Your task to perform on an android device: Go to Wikipedia Image 0: 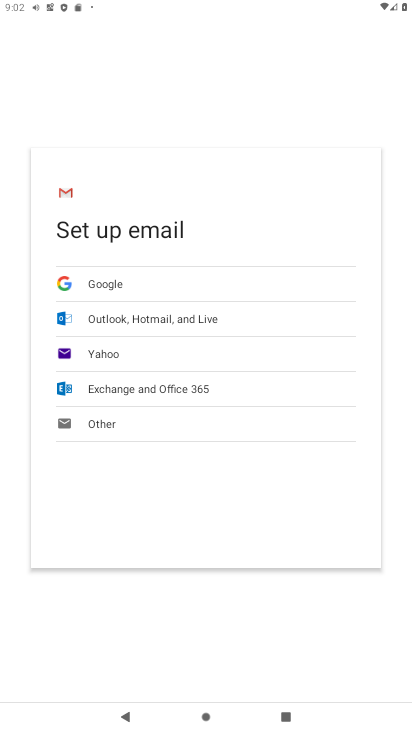
Step 0: press home button
Your task to perform on an android device: Go to Wikipedia Image 1: 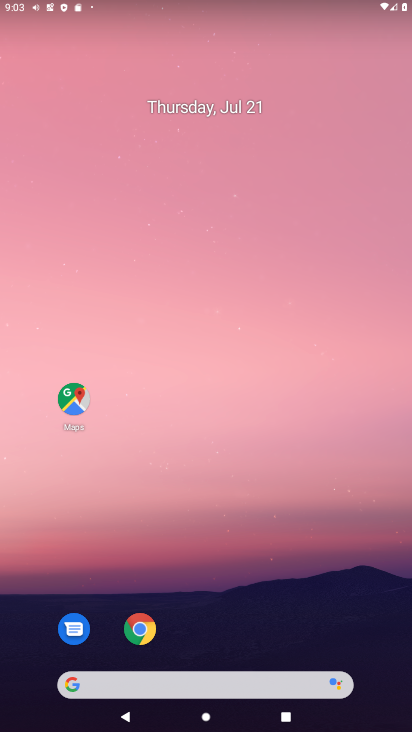
Step 1: click (149, 638)
Your task to perform on an android device: Go to Wikipedia Image 2: 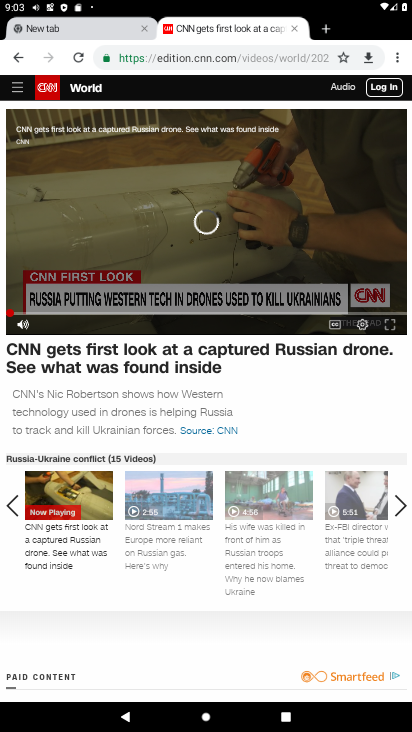
Step 2: click (70, 30)
Your task to perform on an android device: Go to Wikipedia Image 3: 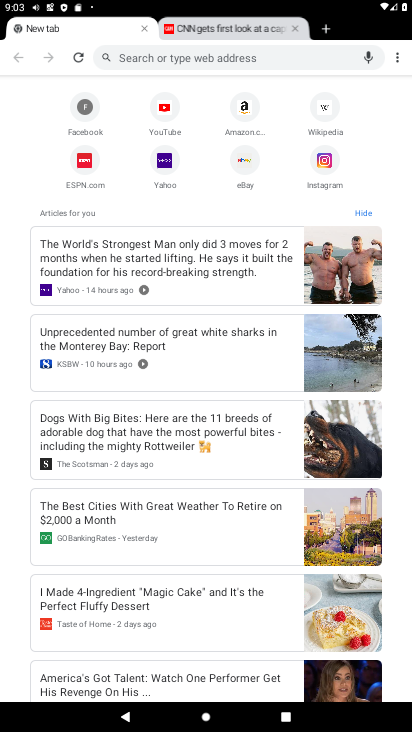
Step 3: click (325, 115)
Your task to perform on an android device: Go to Wikipedia Image 4: 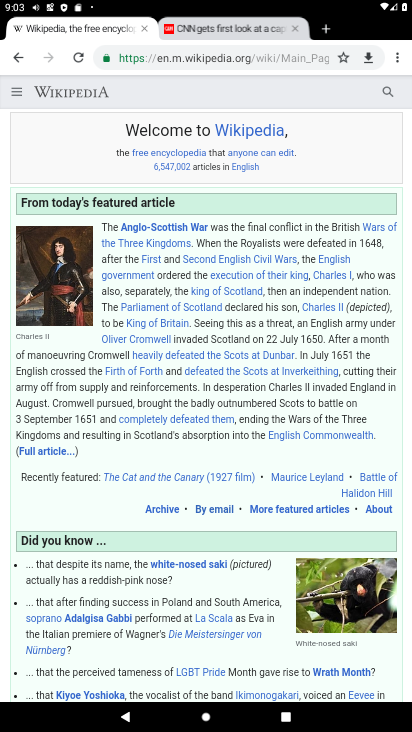
Step 4: task complete